Your task to perform on an android device: set the timer Image 0: 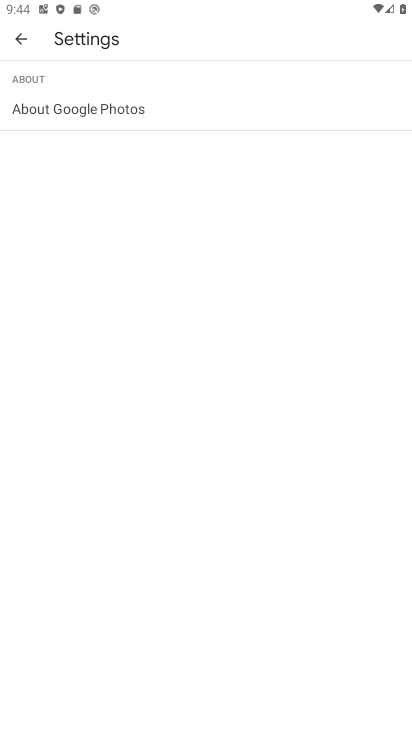
Step 0: press home button
Your task to perform on an android device: set the timer Image 1: 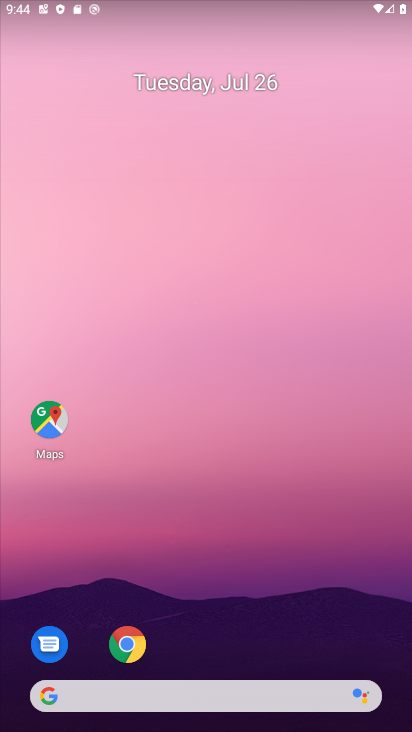
Step 1: drag from (221, 673) to (229, 86)
Your task to perform on an android device: set the timer Image 2: 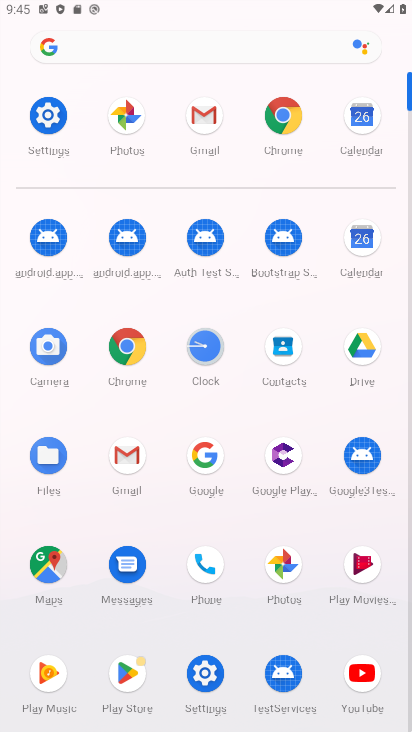
Step 2: click (205, 346)
Your task to perform on an android device: set the timer Image 3: 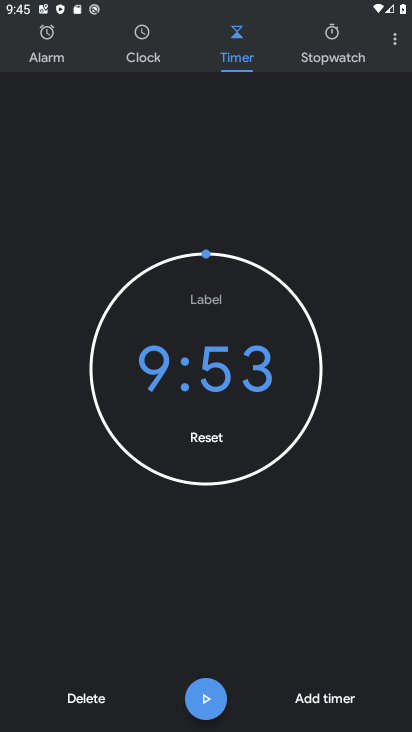
Step 3: click (84, 693)
Your task to perform on an android device: set the timer Image 4: 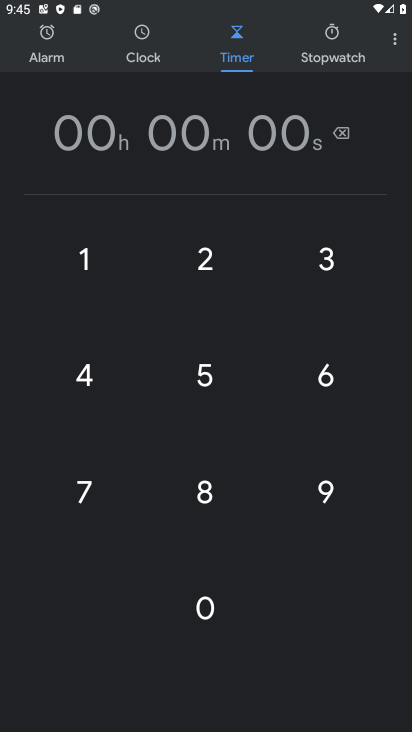
Step 4: click (98, 495)
Your task to perform on an android device: set the timer Image 5: 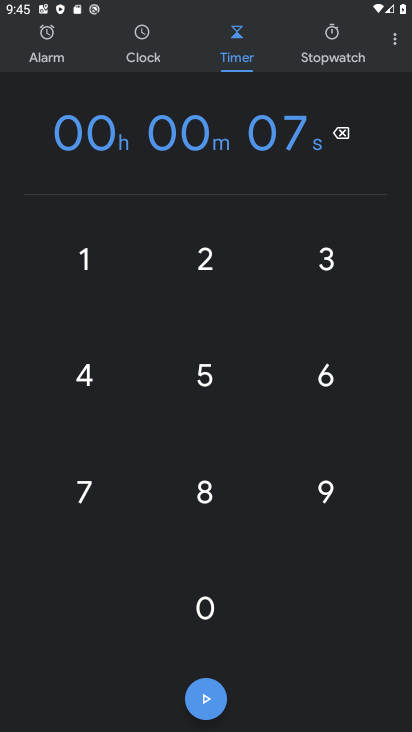
Step 5: click (217, 359)
Your task to perform on an android device: set the timer Image 6: 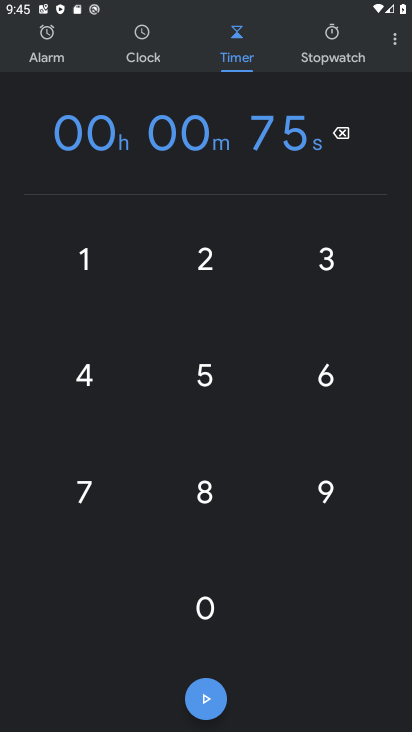
Step 6: click (338, 378)
Your task to perform on an android device: set the timer Image 7: 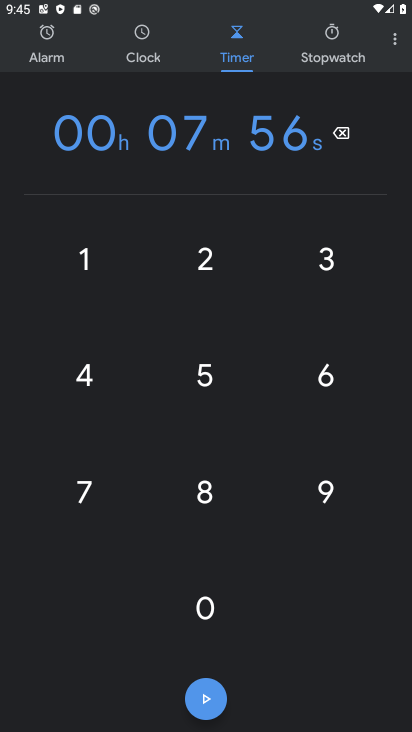
Step 7: click (211, 696)
Your task to perform on an android device: set the timer Image 8: 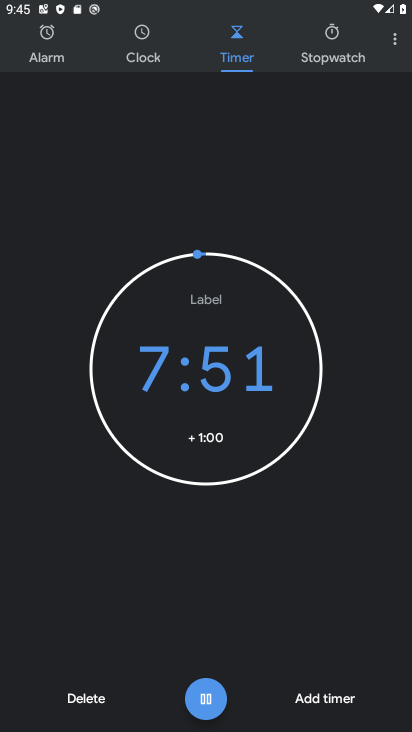
Step 8: task complete